Your task to perform on an android device: turn off picture-in-picture Image 0: 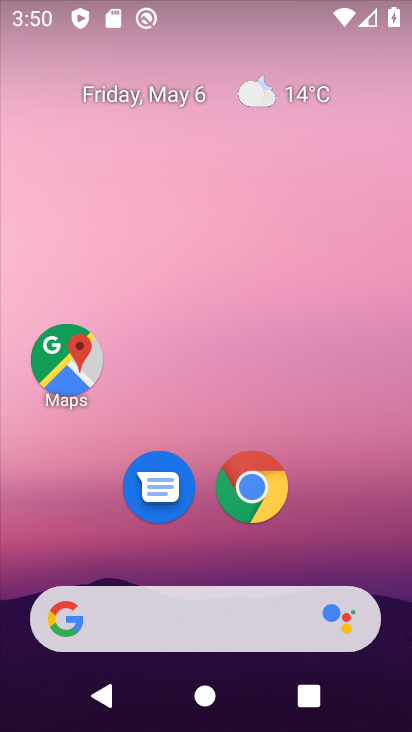
Step 0: drag from (140, 554) to (274, 12)
Your task to perform on an android device: turn off picture-in-picture Image 1: 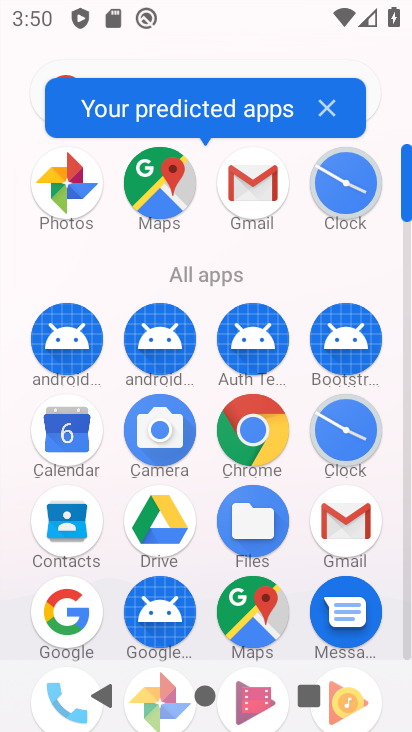
Step 1: drag from (78, 673) to (213, 375)
Your task to perform on an android device: turn off picture-in-picture Image 2: 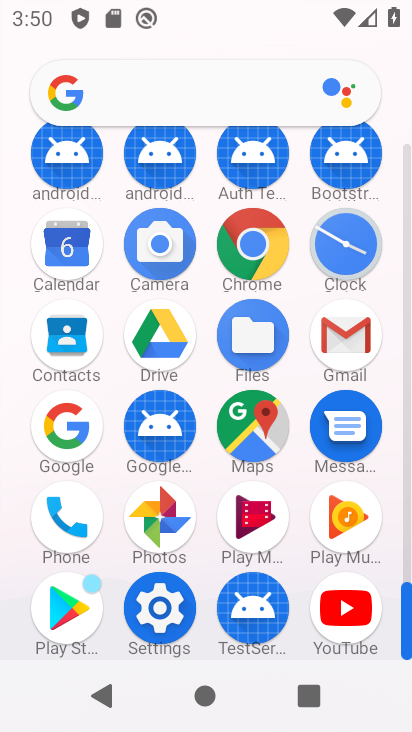
Step 2: click (163, 611)
Your task to perform on an android device: turn off picture-in-picture Image 3: 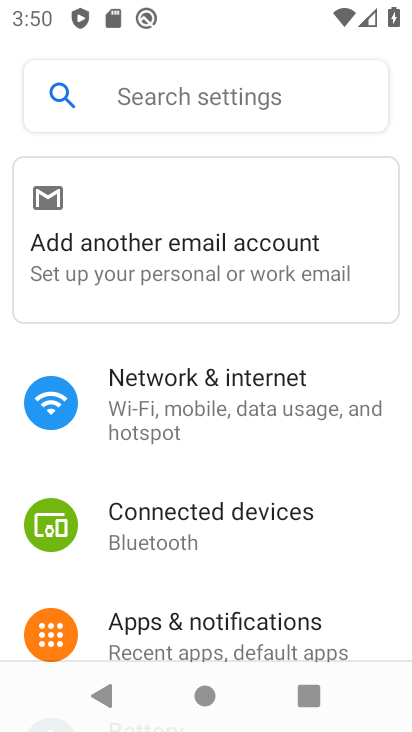
Step 3: drag from (214, 646) to (248, 480)
Your task to perform on an android device: turn off picture-in-picture Image 4: 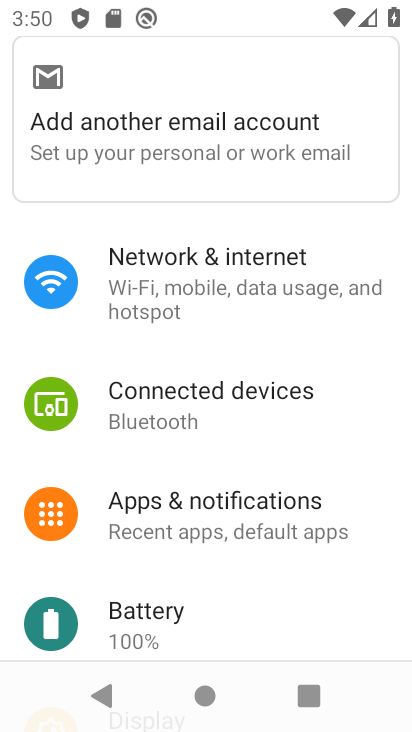
Step 4: drag from (177, 641) to (226, 386)
Your task to perform on an android device: turn off picture-in-picture Image 5: 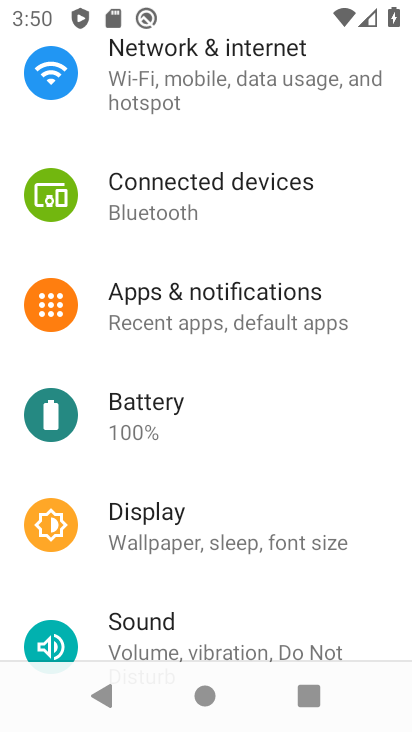
Step 5: drag from (170, 639) to (221, 385)
Your task to perform on an android device: turn off picture-in-picture Image 6: 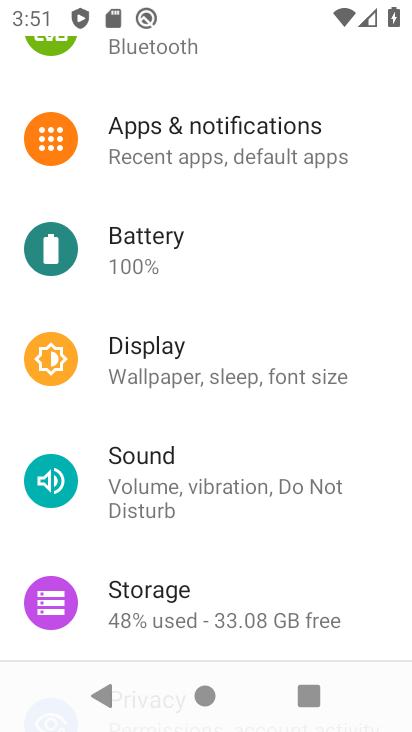
Step 6: click (226, 162)
Your task to perform on an android device: turn off picture-in-picture Image 7: 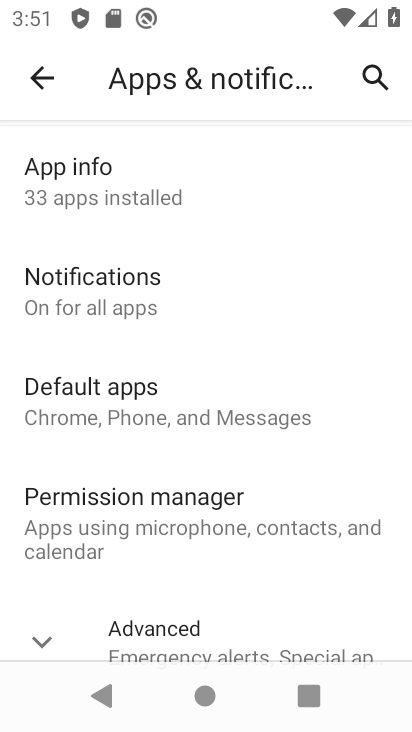
Step 7: drag from (130, 610) to (261, 191)
Your task to perform on an android device: turn off picture-in-picture Image 8: 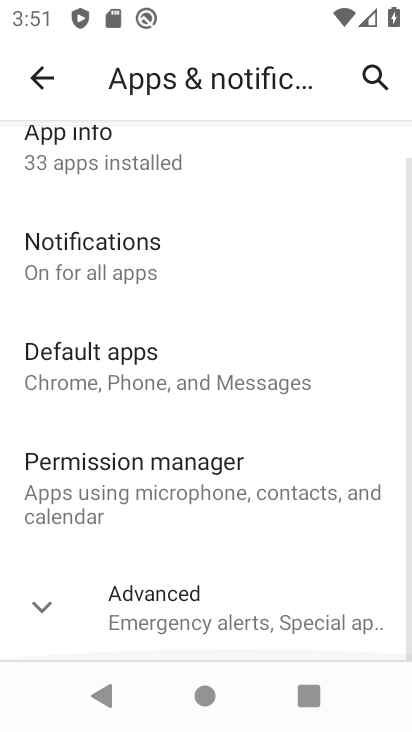
Step 8: click (167, 606)
Your task to perform on an android device: turn off picture-in-picture Image 9: 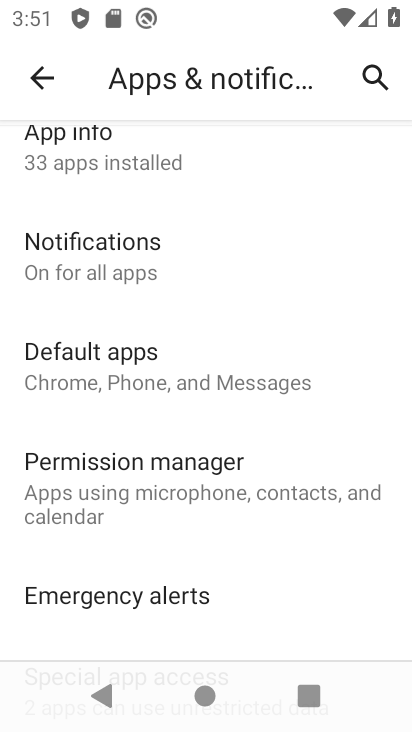
Step 9: drag from (92, 595) to (233, 170)
Your task to perform on an android device: turn off picture-in-picture Image 10: 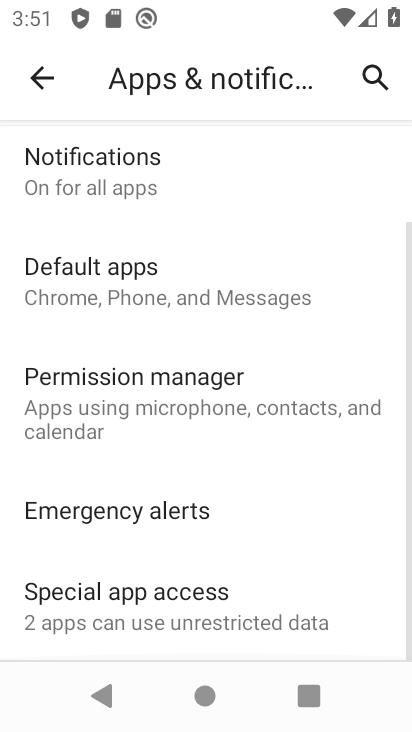
Step 10: click (142, 590)
Your task to perform on an android device: turn off picture-in-picture Image 11: 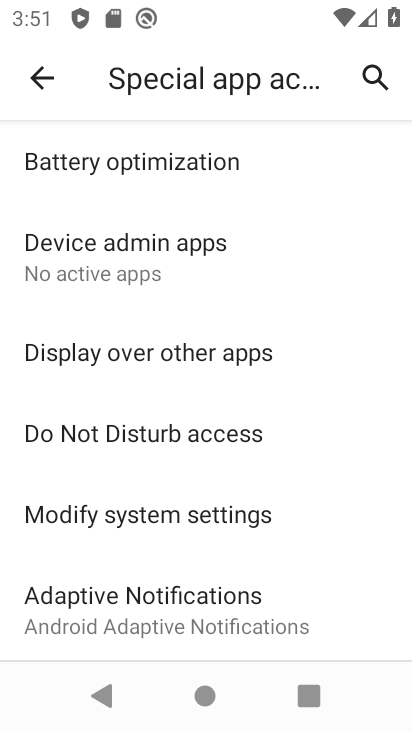
Step 11: drag from (169, 581) to (279, 179)
Your task to perform on an android device: turn off picture-in-picture Image 12: 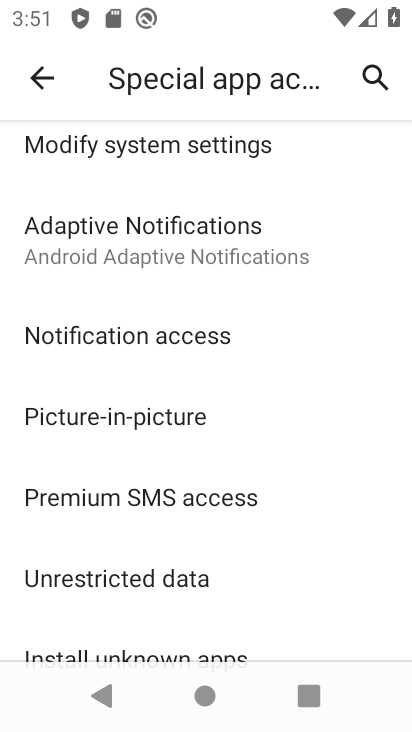
Step 12: click (196, 408)
Your task to perform on an android device: turn off picture-in-picture Image 13: 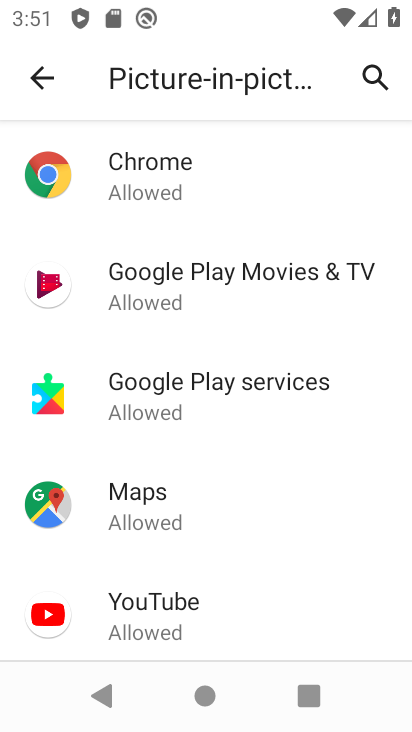
Step 13: click (216, 223)
Your task to perform on an android device: turn off picture-in-picture Image 14: 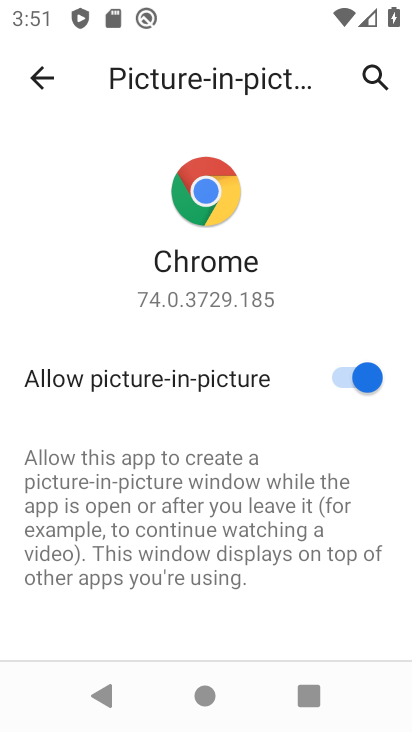
Step 14: drag from (203, 606) to (224, 486)
Your task to perform on an android device: turn off picture-in-picture Image 15: 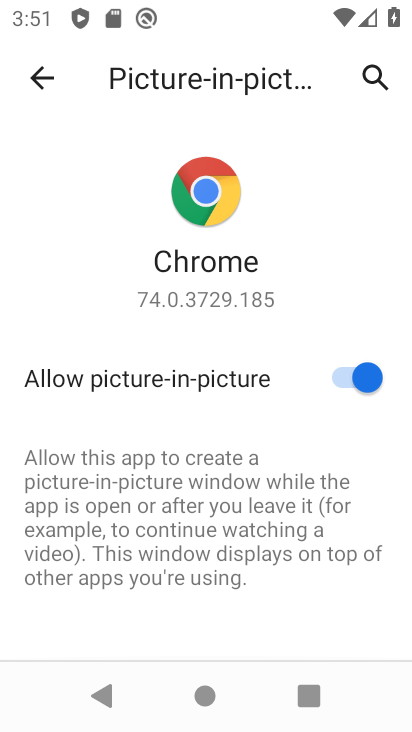
Step 15: click (363, 370)
Your task to perform on an android device: turn off picture-in-picture Image 16: 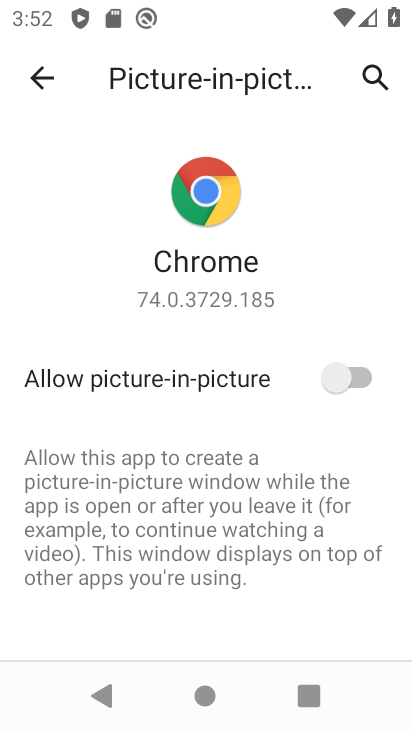
Step 16: press back button
Your task to perform on an android device: turn off picture-in-picture Image 17: 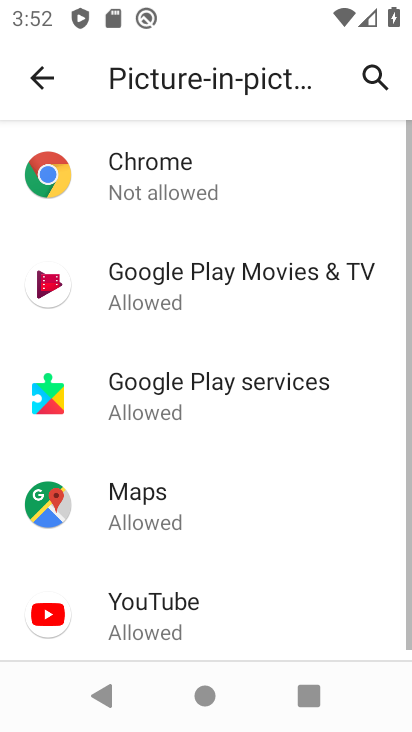
Step 17: click (276, 291)
Your task to perform on an android device: turn off picture-in-picture Image 18: 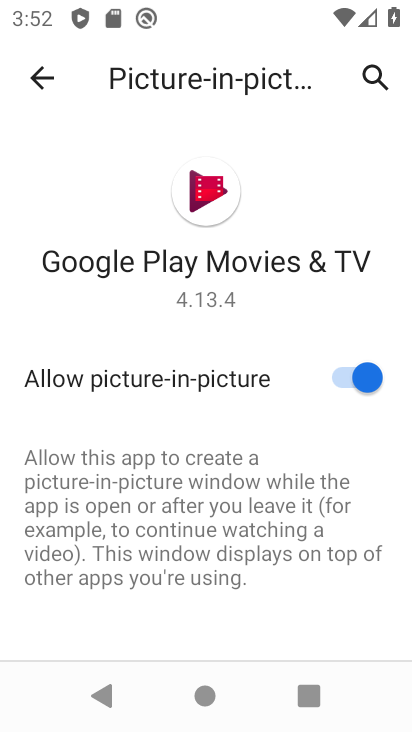
Step 18: click (344, 373)
Your task to perform on an android device: turn off picture-in-picture Image 19: 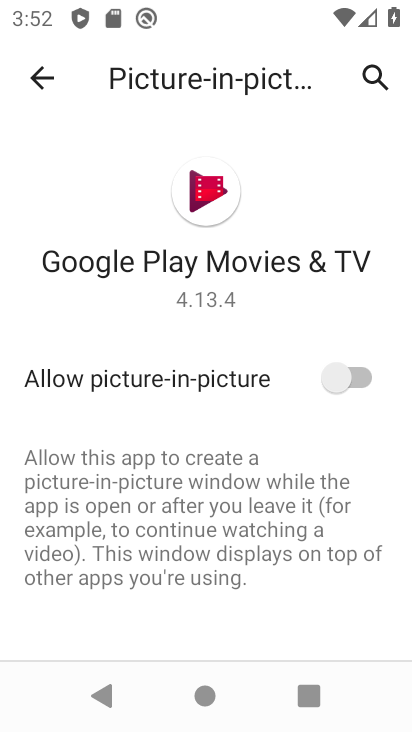
Step 19: press back button
Your task to perform on an android device: turn off picture-in-picture Image 20: 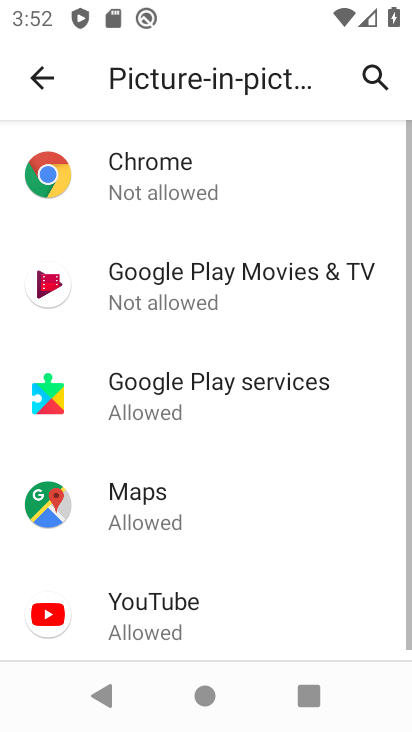
Step 20: click (249, 394)
Your task to perform on an android device: turn off picture-in-picture Image 21: 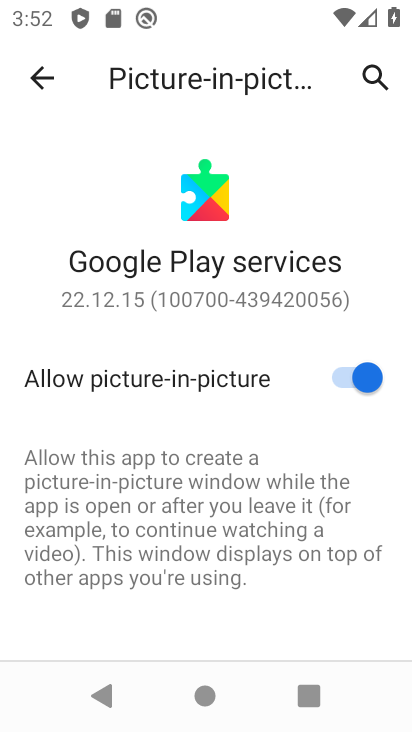
Step 21: click (347, 376)
Your task to perform on an android device: turn off picture-in-picture Image 22: 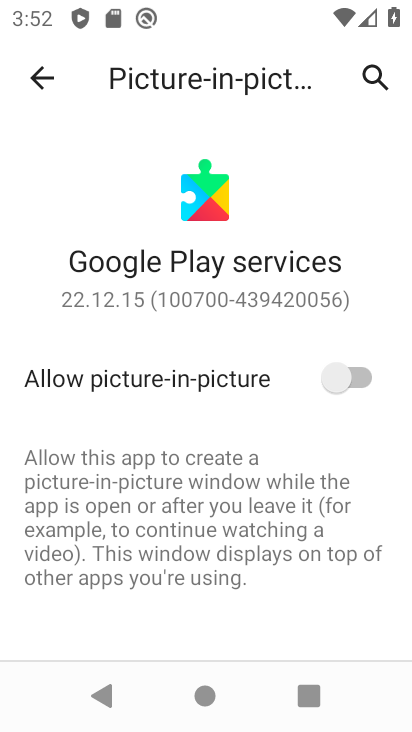
Step 22: press back button
Your task to perform on an android device: turn off picture-in-picture Image 23: 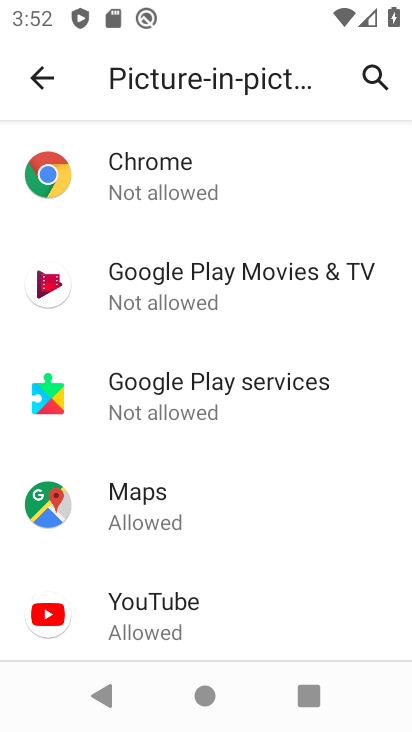
Step 23: click (212, 507)
Your task to perform on an android device: turn off picture-in-picture Image 24: 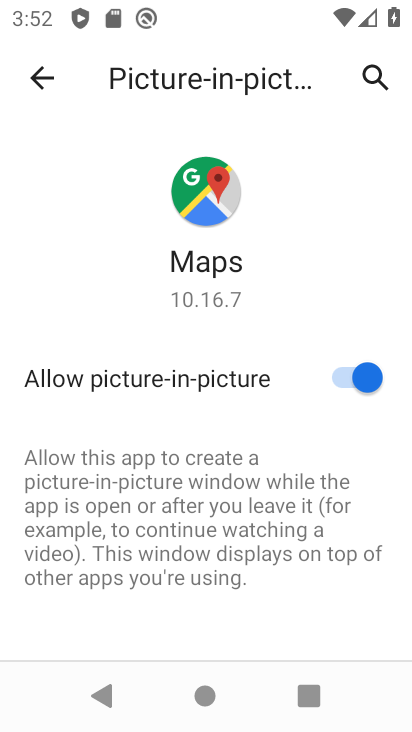
Step 24: click (341, 374)
Your task to perform on an android device: turn off picture-in-picture Image 25: 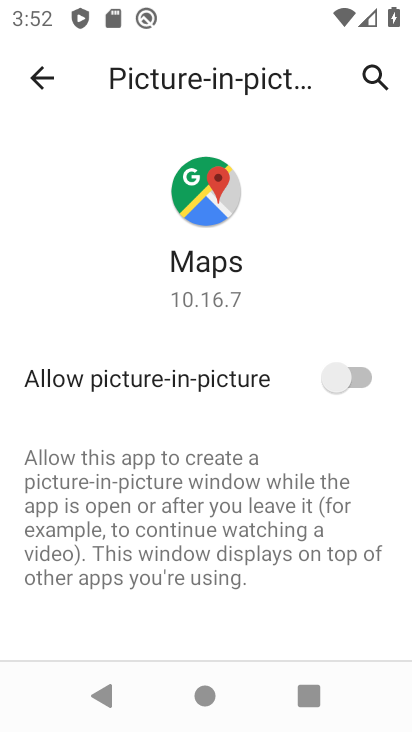
Step 25: press back button
Your task to perform on an android device: turn off picture-in-picture Image 26: 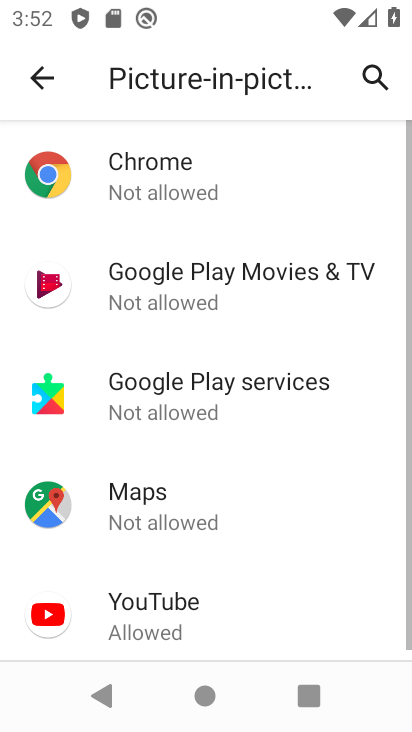
Step 26: click (186, 638)
Your task to perform on an android device: turn off picture-in-picture Image 27: 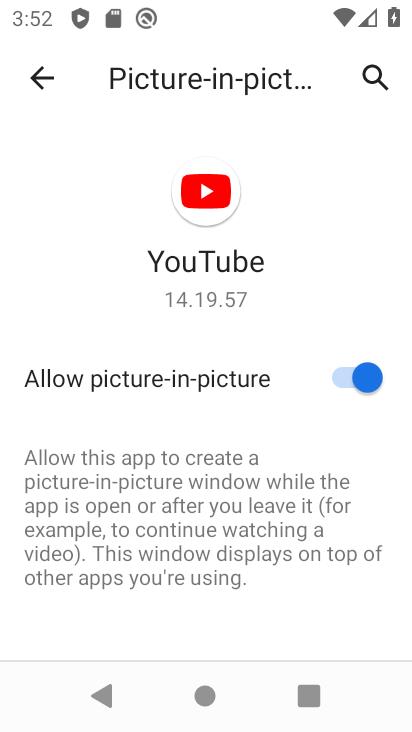
Step 27: click (352, 369)
Your task to perform on an android device: turn off picture-in-picture Image 28: 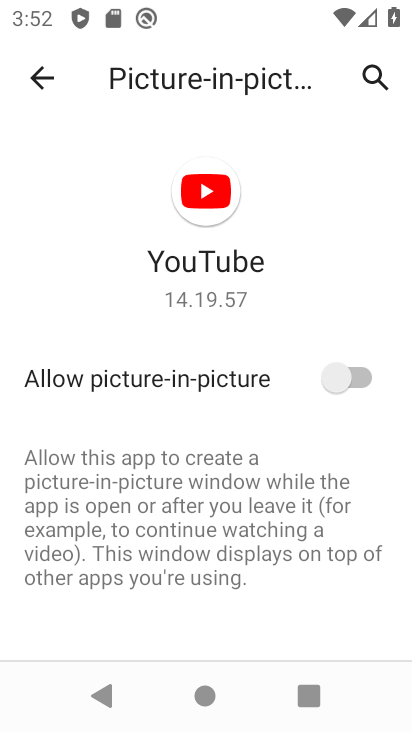
Step 28: task complete